Your task to perform on an android device: change timer sound Image 0: 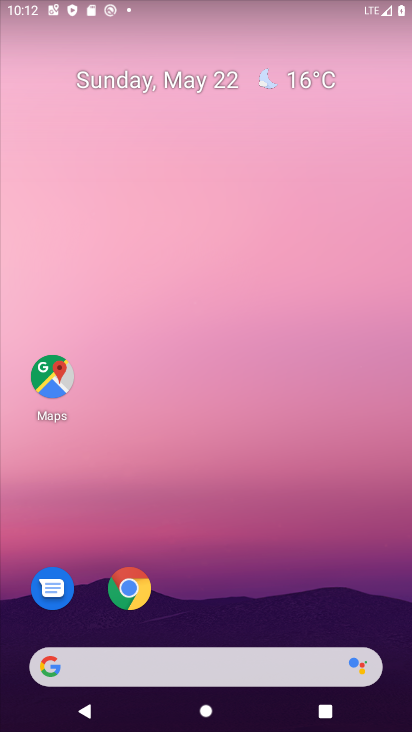
Step 0: drag from (227, 614) to (236, 176)
Your task to perform on an android device: change timer sound Image 1: 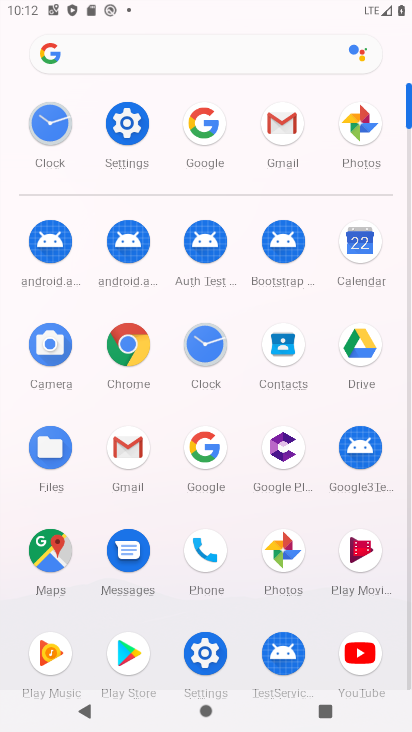
Step 1: click (198, 366)
Your task to perform on an android device: change timer sound Image 2: 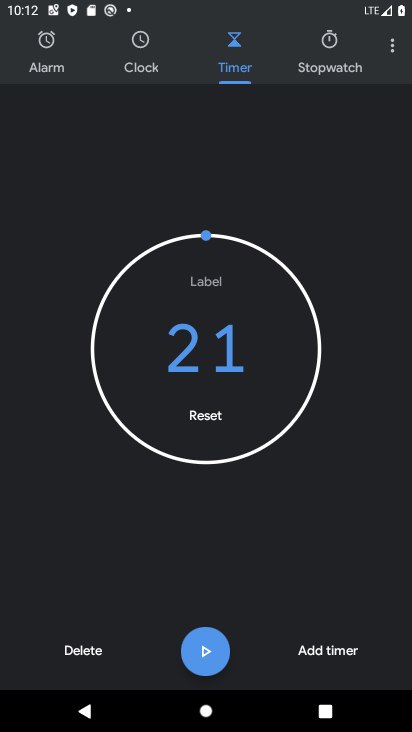
Step 2: click (392, 50)
Your task to perform on an android device: change timer sound Image 3: 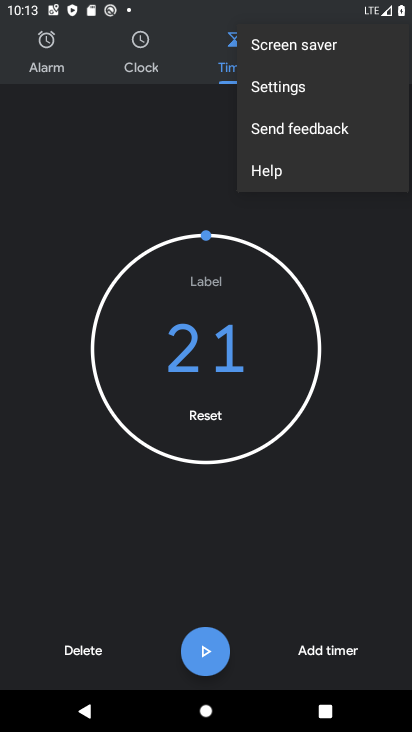
Step 3: click (309, 83)
Your task to perform on an android device: change timer sound Image 4: 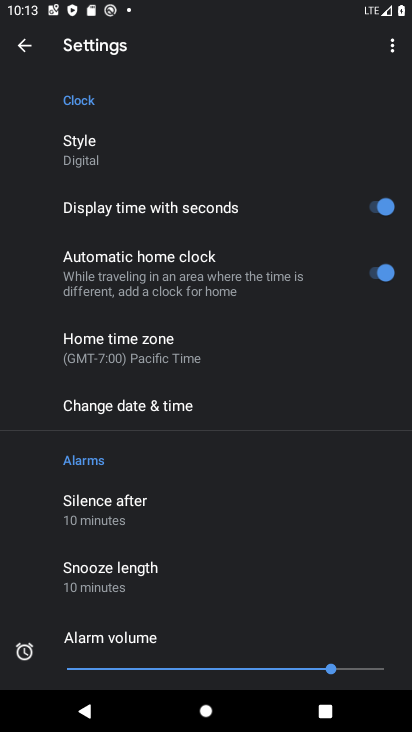
Step 4: drag from (205, 561) to (214, 372)
Your task to perform on an android device: change timer sound Image 5: 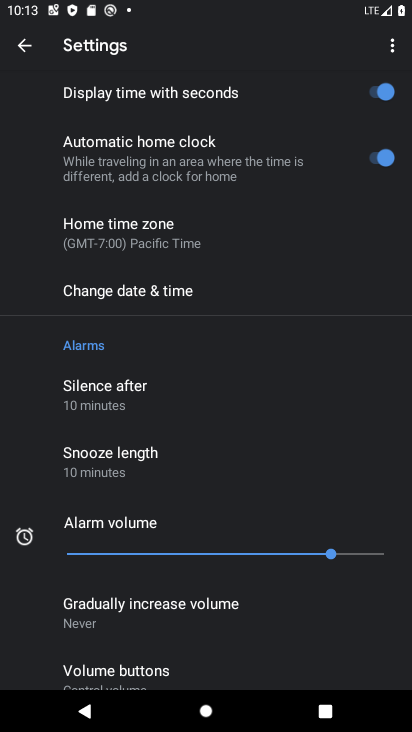
Step 5: drag from (181, 512) to (225, 231)
Your task to perform on an android device: change timer sound Image 6: 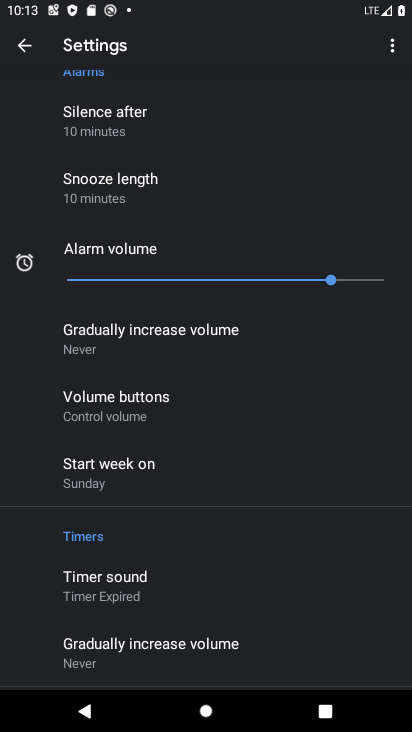
Step 6: click (159, 574)
Your task to perform on an android device: change timer sound Image 7: 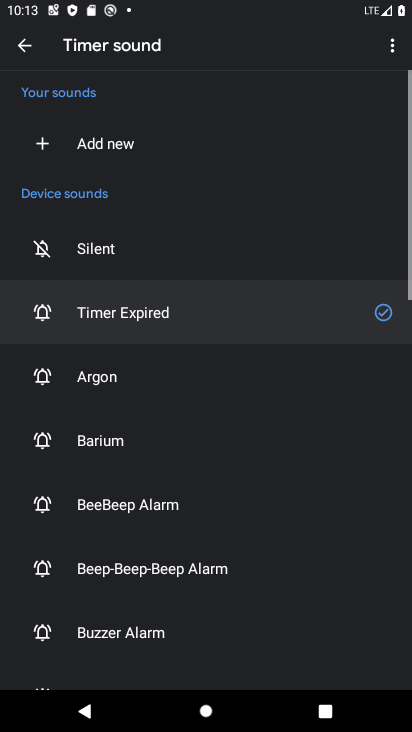
Step 7: click (109, 389)
Your task to perform on an android device: change timer sound Image 8: 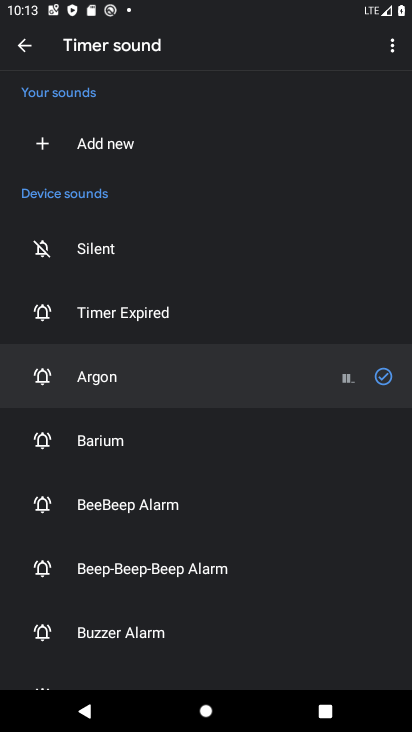
Step 8: task complete